Your task to perform on an android device: find which apps use the phone's location Image 0: 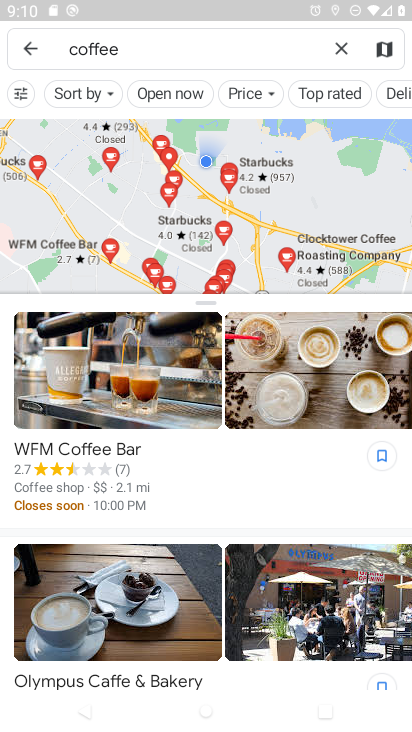
Step 0: press home button
Your task to perform on an android device: find which apps use the phone's location Image 1: 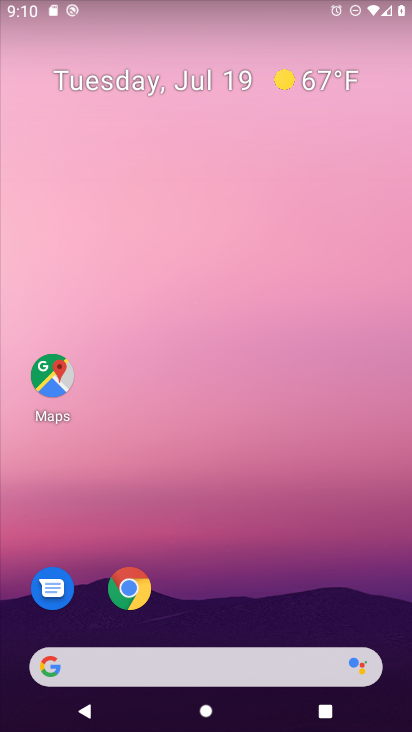
Step 1: drag from (292, 600) to (286, 190)
Your task to perform on an android device: find which apps use the phone's location Image 2: 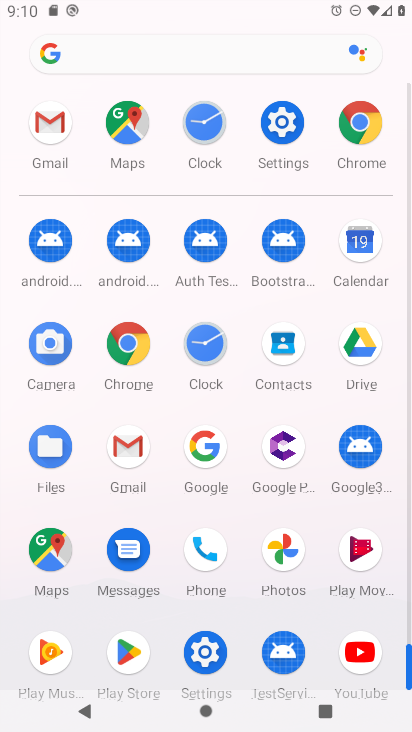
Step 2: click (289, 129)
Your task to perform on an android device: find which apps use the phone's location Image 3: 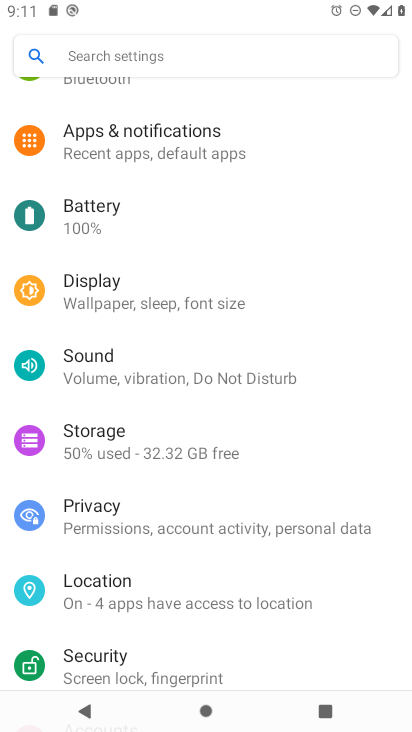
Step 3: drag from (323, 466) to (337, 358)
Your task to perform on an android device: find which apps use the phone's location Image 4: 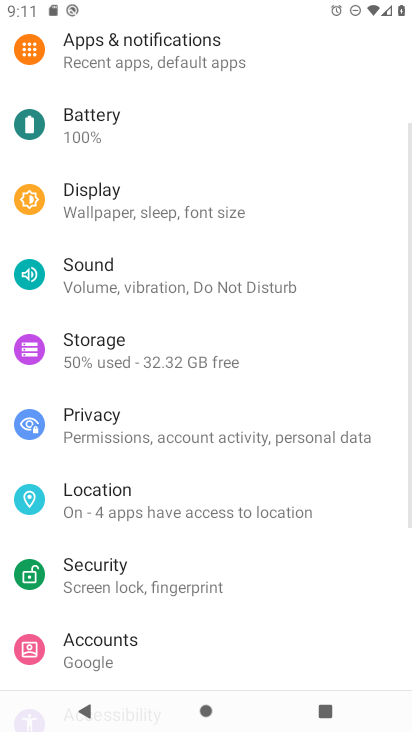
Step 4: drag from (329, 551) to (357, 409)
Your task to perform on an android device: find which apps use the phone's location Image 5: 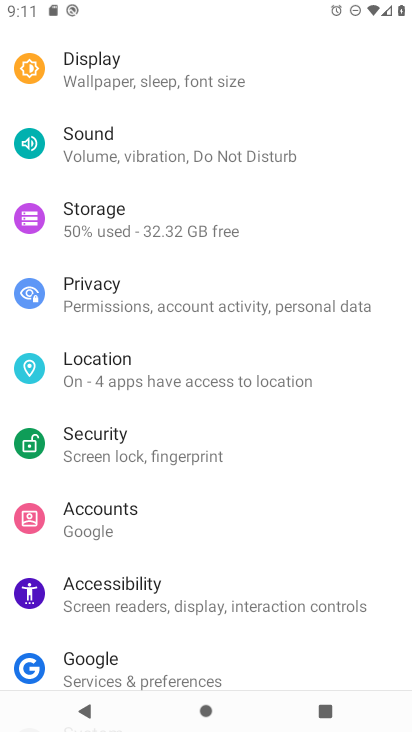
Step 5: click (184, 379)
Your task to perform on an android device: find which apps use the phone's location Image 6: 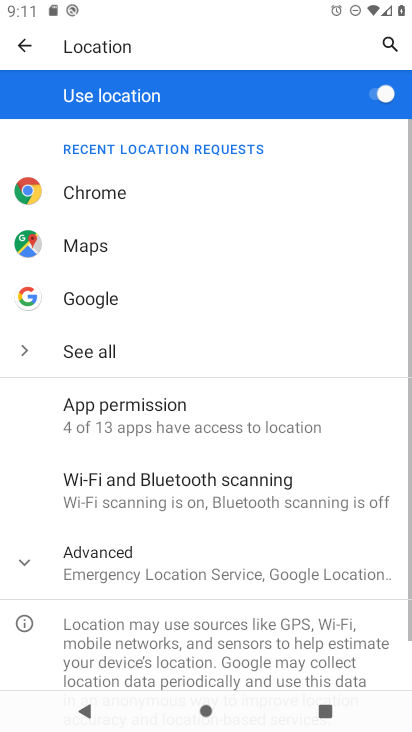
Step 6: click (163, 416)
Your task to perform on an android device: find which apps use the phone's location Image 7: 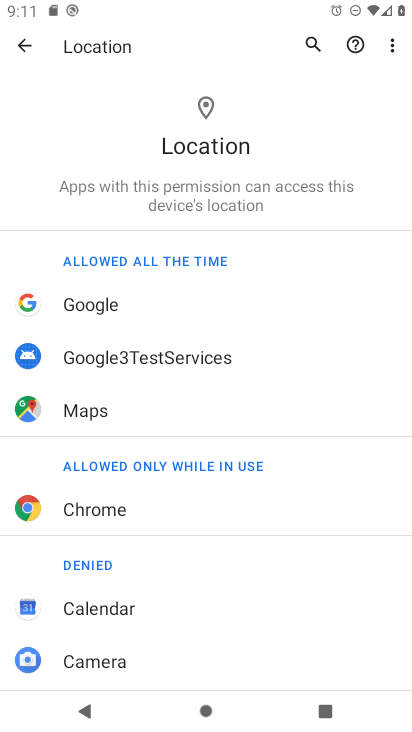
Step 7: drag from (296, 547) to (313, 431)
Your task to perform on an android device: find which apps use the phone's location Image 8: 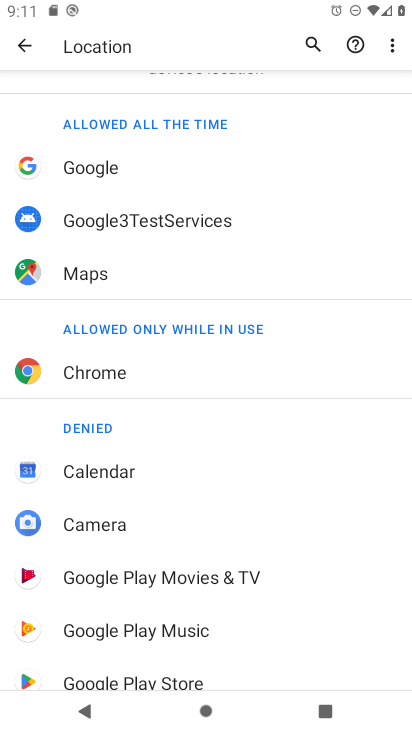
Step 8: drag from (330, 599) to (335, 485)
Your task to perform on an android device: find which apps use the phone's location Image 9: 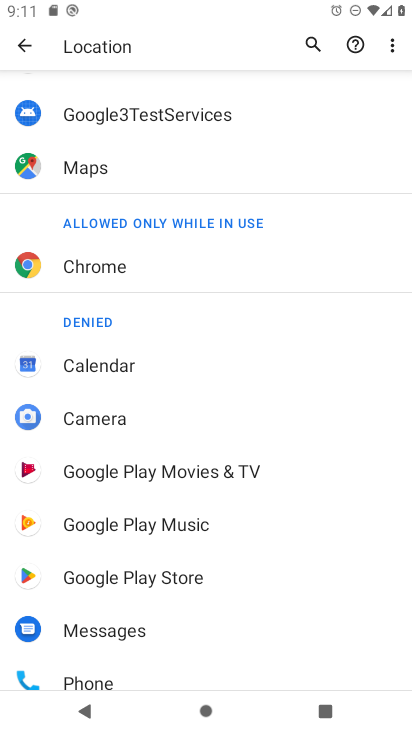
Step 9: drag from (331, 564) to (332, 465)
Your task to perform on an android device: find which apps use the phone's location Image 10: 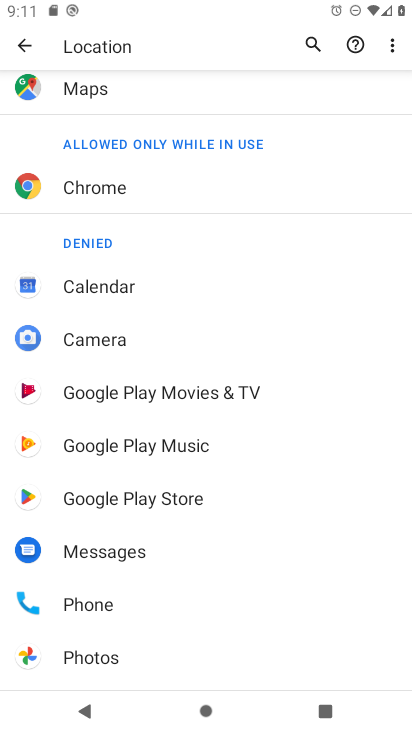
Step 10: drag from (294, 555) to (305, 454)
Your task to perform on an android device: find which apps use the phone's location Image 11: 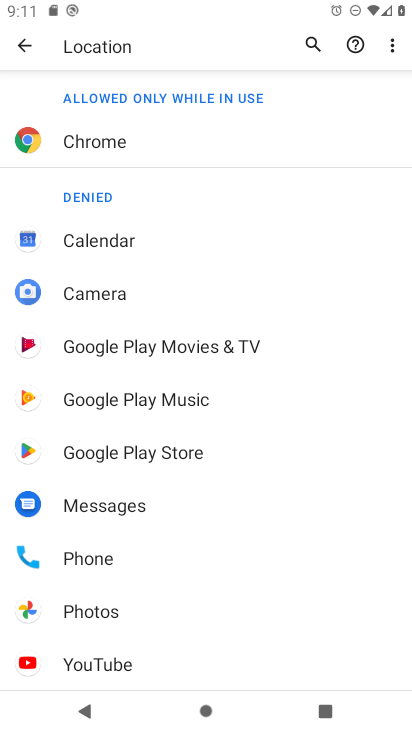
Step 11: click (122, 624)
Your task to perform on an android device: find which apps use the phone's location Image 12: 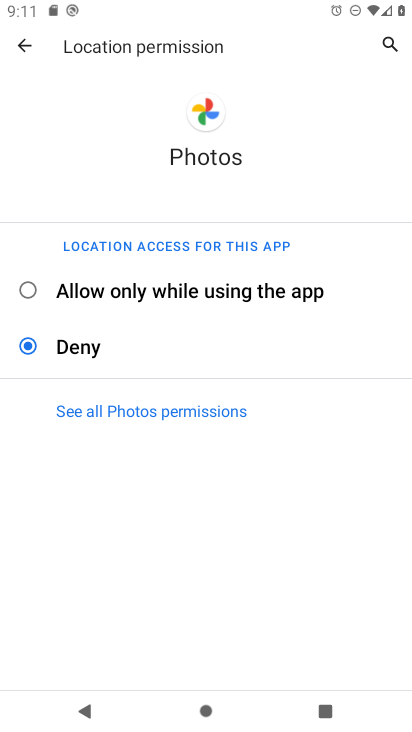
Step 12: click (189, 298)
Your task to perform on an android device: find which apps use the phone's location Image 13: 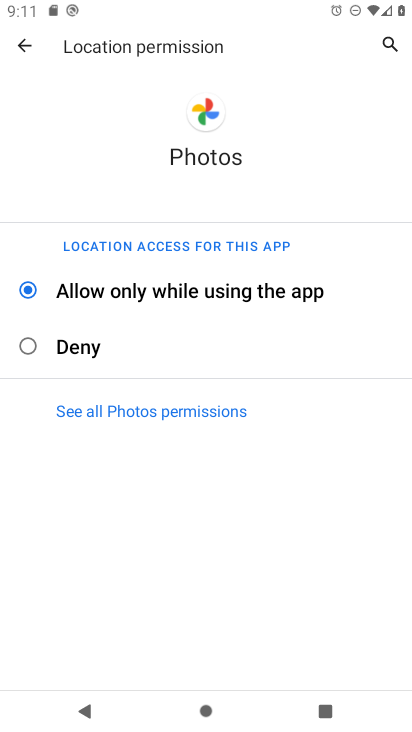
Step 13: task complete